Your task to perform on an android device: Add "logitech g pro" to the cart on walmart Image 0: 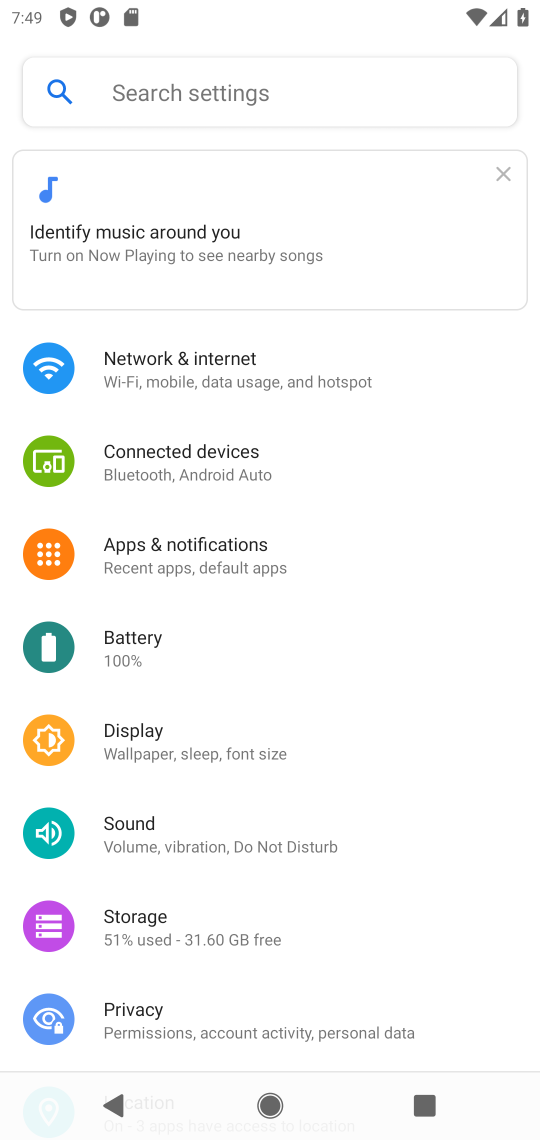
Step 0: press home button
Your task to perform on an android device: Add "logitech g pro" to the cart on walmart Image 1: 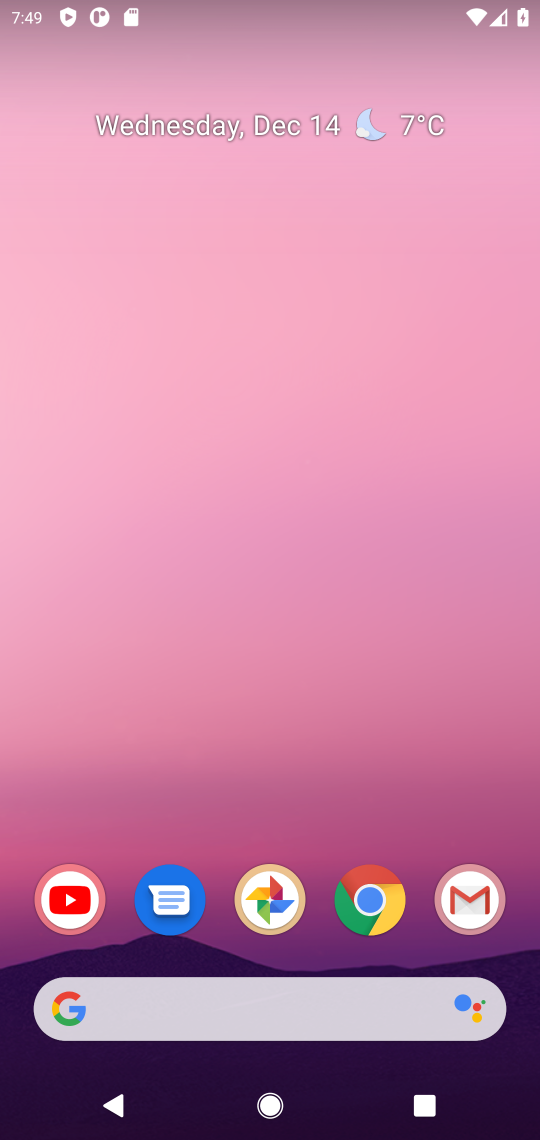
Step 1: click (284, 1003)
Your task to perform on an android device: Add "logitech g pro" to the cart on walmart Image 2: 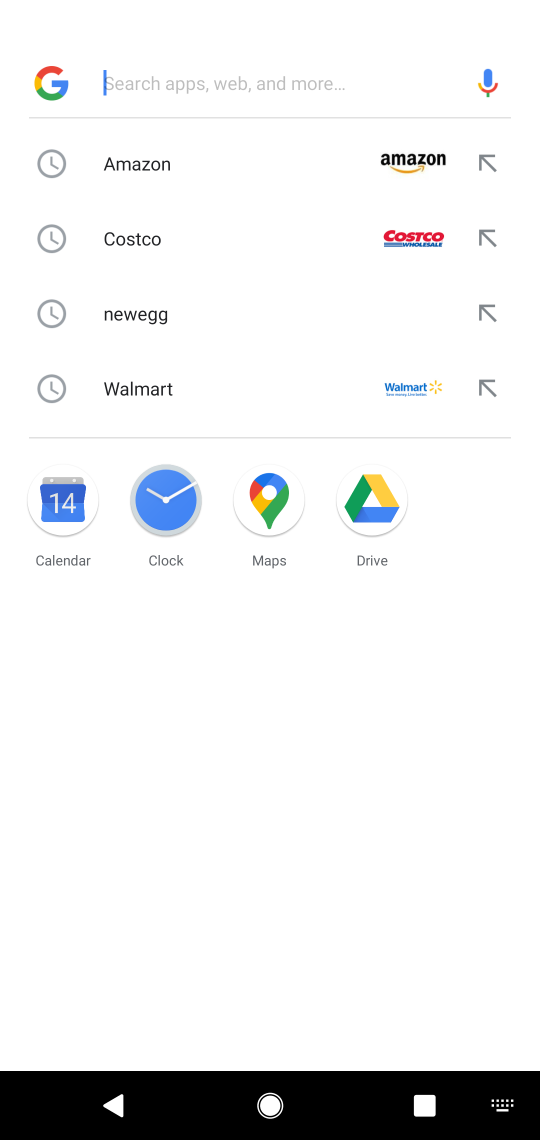
Step 2: type "walmart"
Your task to perform on an android device: Add "logitech g pro" to the cart on walmart Image 3: 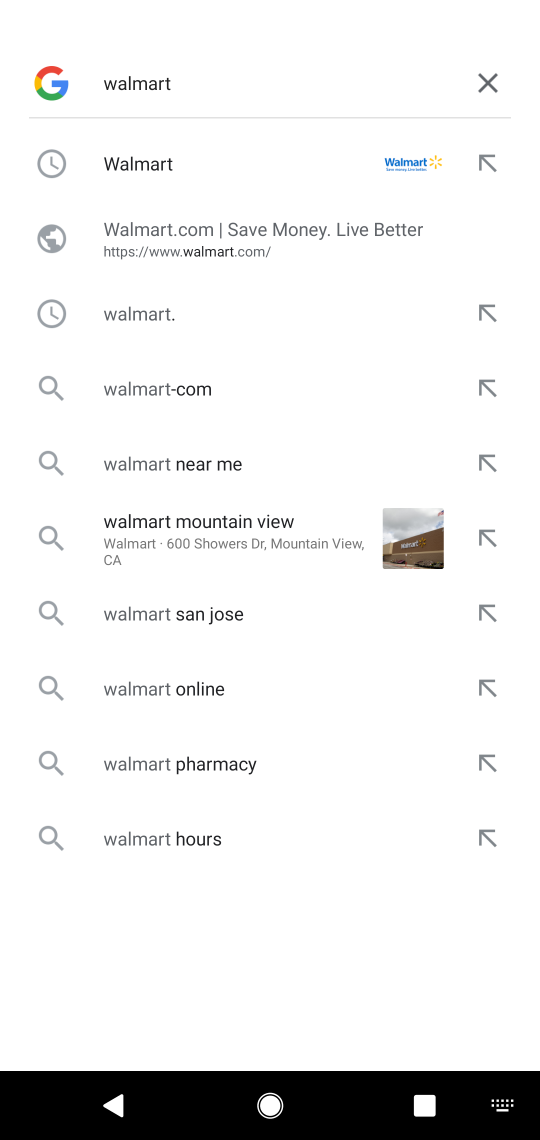
Step 3: type ""
Your task to perform on an android device: Add "logitech g pro" to the cart on walmart Image 4: 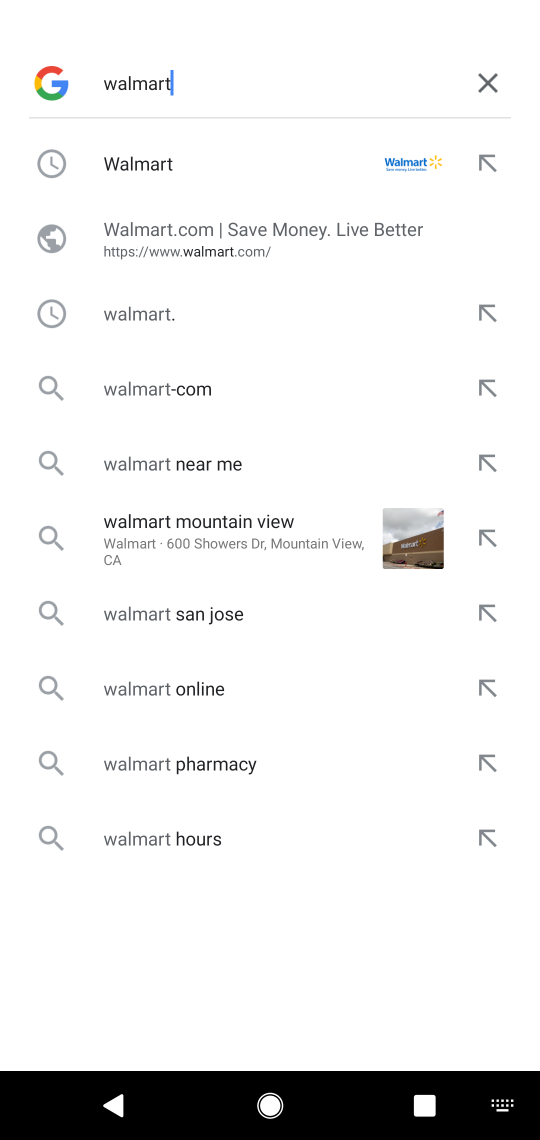
Step 4: click (192, 156)
Your task to perform on an android device: Add "logitech g pro" to the cart on walmart Image 5: 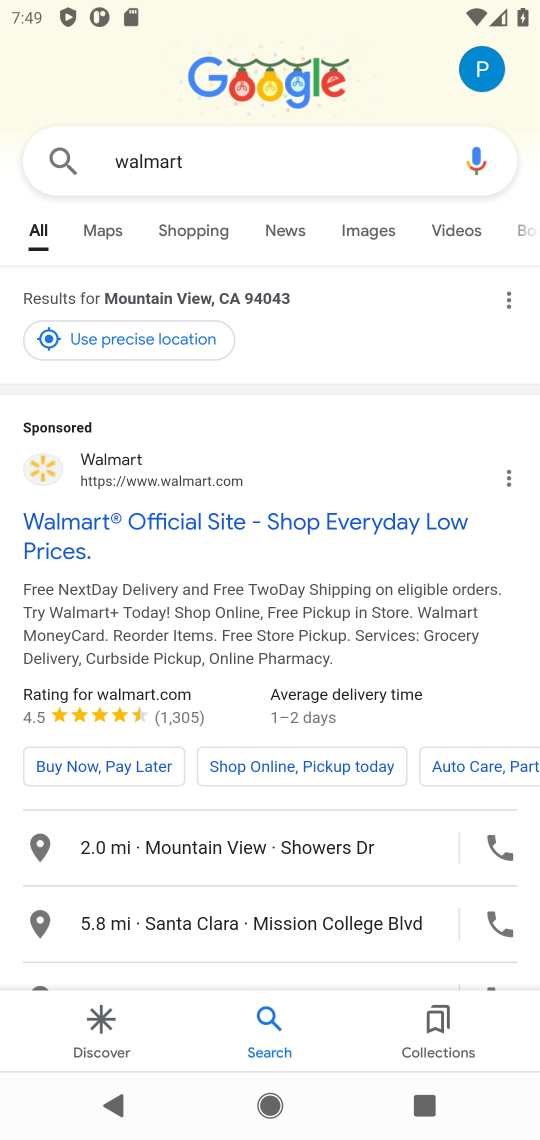
Step 5: click (156, 527)
Your task to perform on an android device: Add "logitech g pro" to the cart on walmart Image 6: 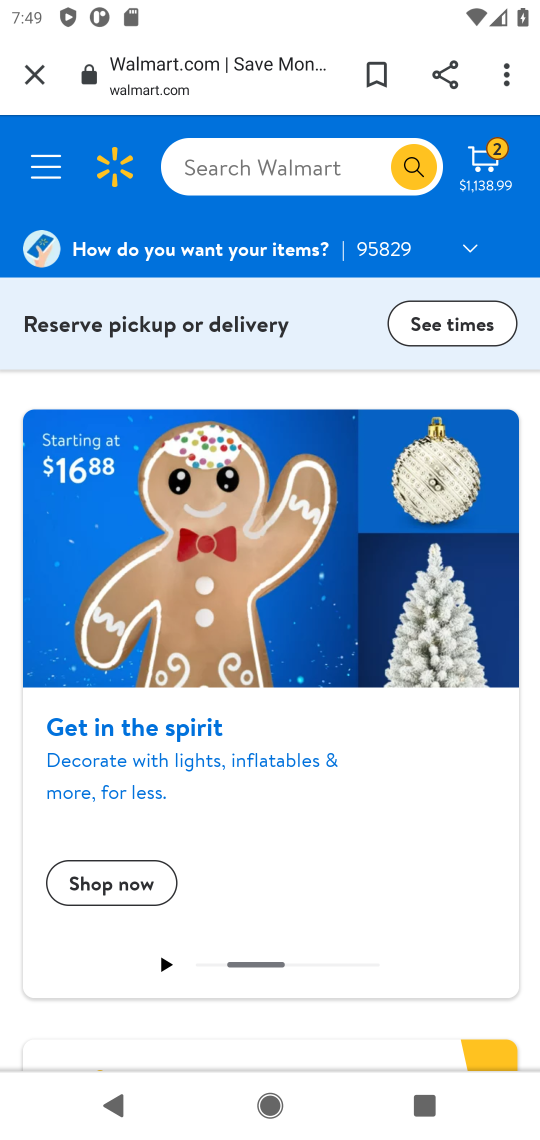
Step 6: click (201, 175)
Your task to perform on an android device: Add "logitech g pro" to the cart on walmart Image 7: 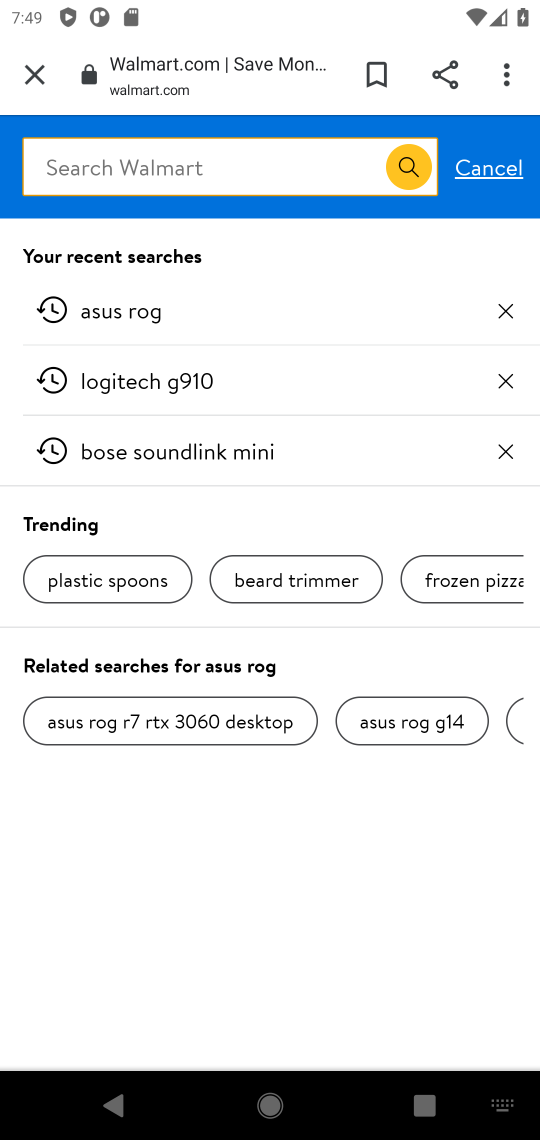
Step 7: type "logitech g pro"
Your task to perform on an android device: Add "logitech g pro" to the cart on walmart Image 8: 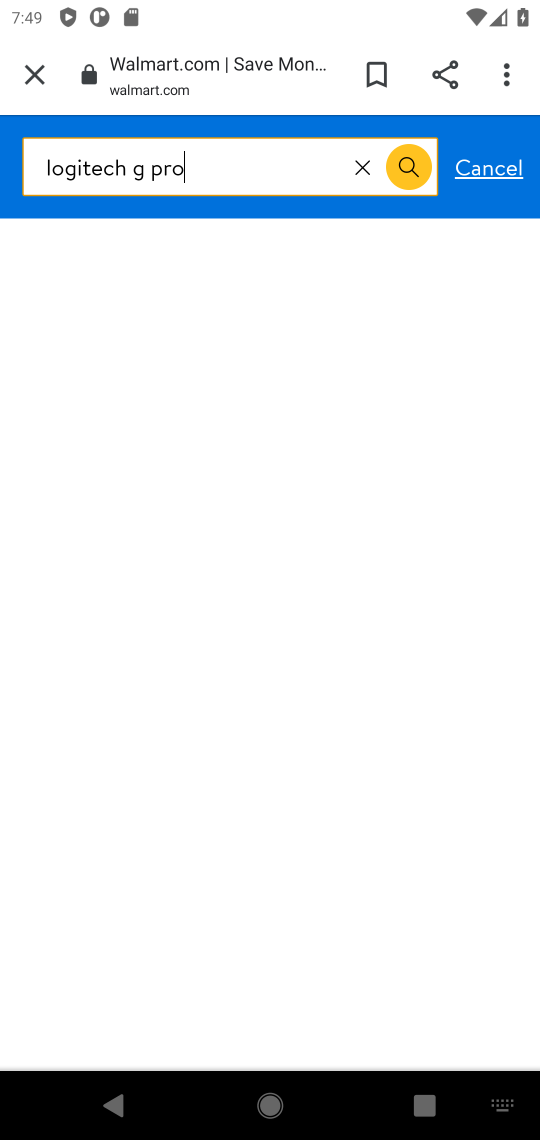
Step 8: type ""
Your task to perform on an android device: Add "logitech g pro" to the cart on walmart Image 9: 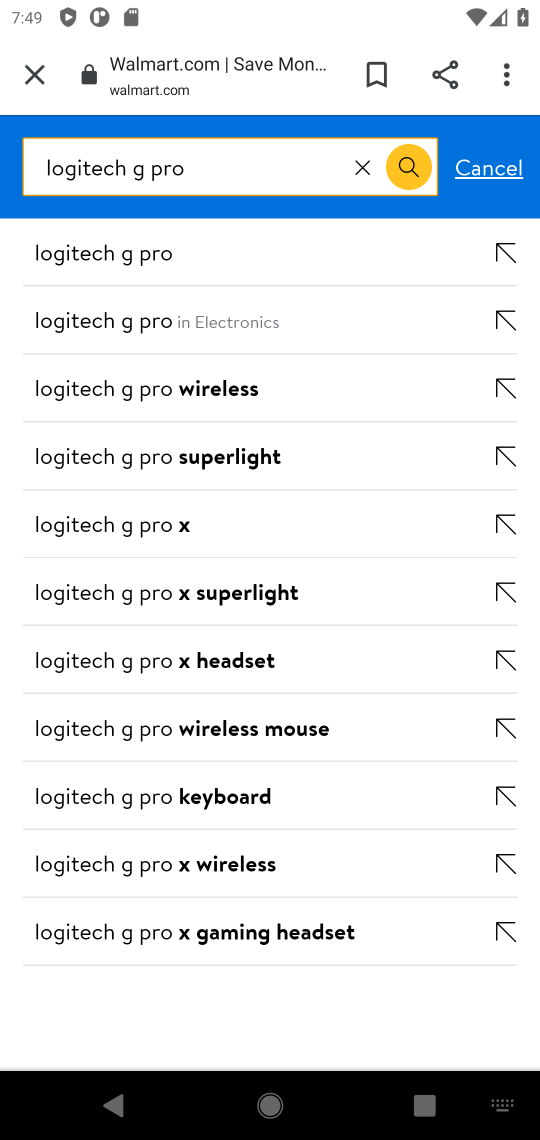
Step 9: click (146, 259)
Your task to perform on an android device: Add "logitech g pro" to the cart on walmart Image 10: 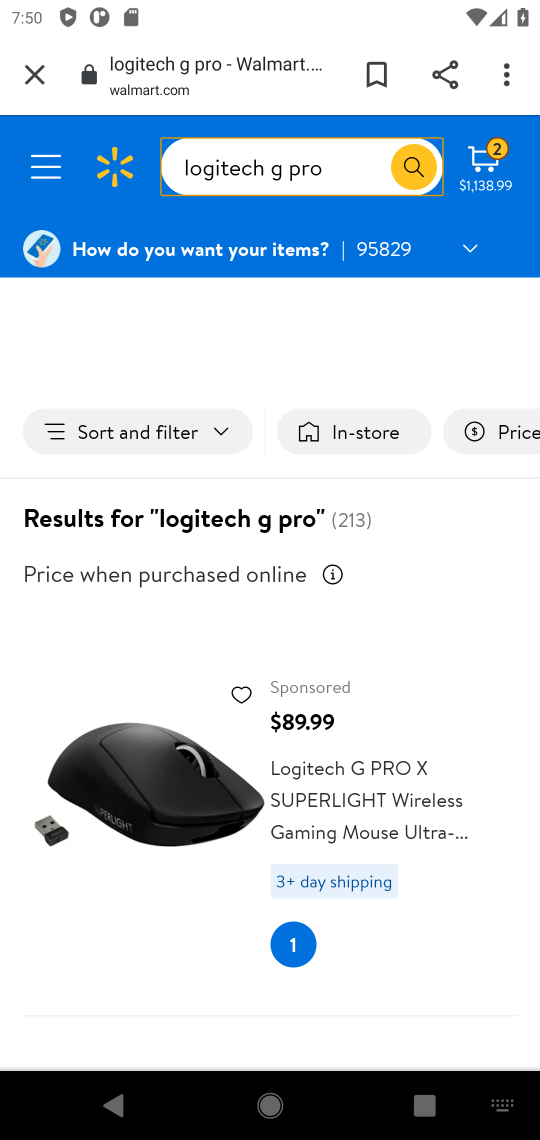
Step 10: drag from (232, 866) to (142, 551)
Your task to perform on an android device: Add "logitech g pro" to the cart on walmart Image 11: 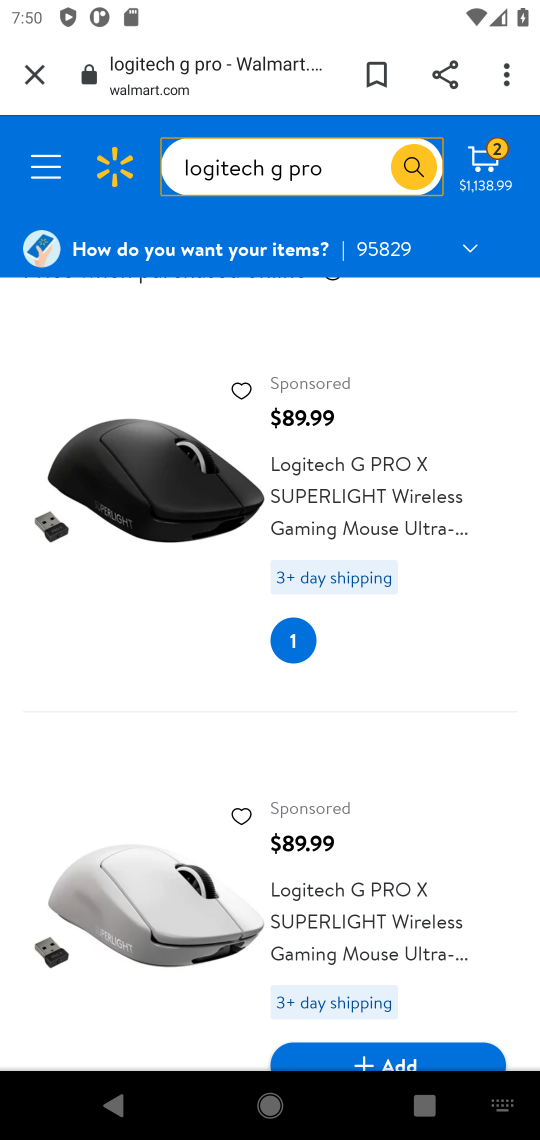
Step 11: drag from (305, 943) to (212, 663)
Your task to perform on an android device: Add "logitech g pro" to the cart on walmart Image 12: 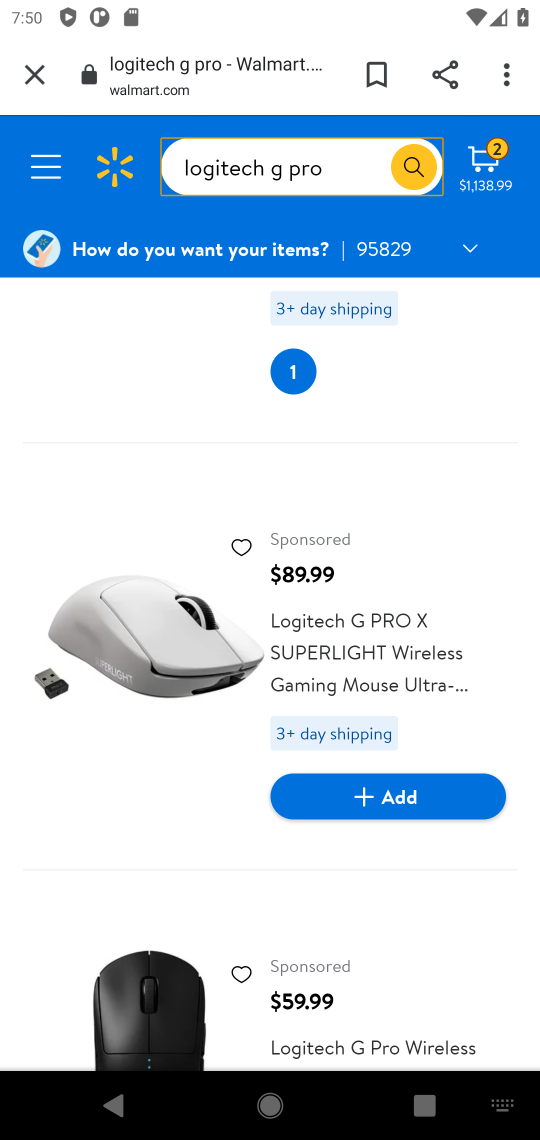
Step 12: click (414, 814)
Your task to perform on an android device: Add "logitech g pro" to the cart on walmart Image 13: 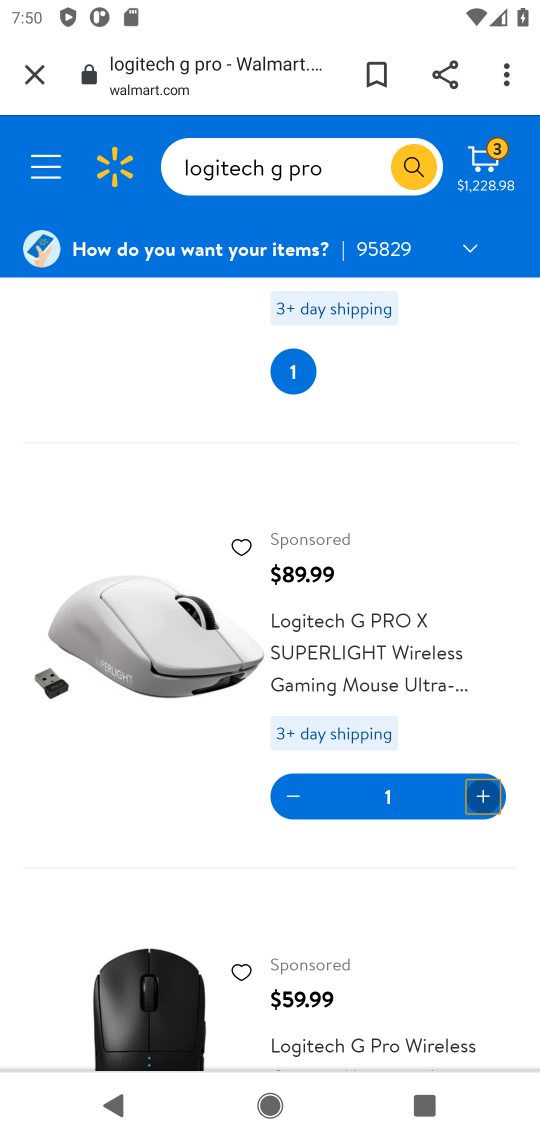
Step 13: task complete